Your task to perform on an android device: turn vacation reply on in the gmail app Image 0: 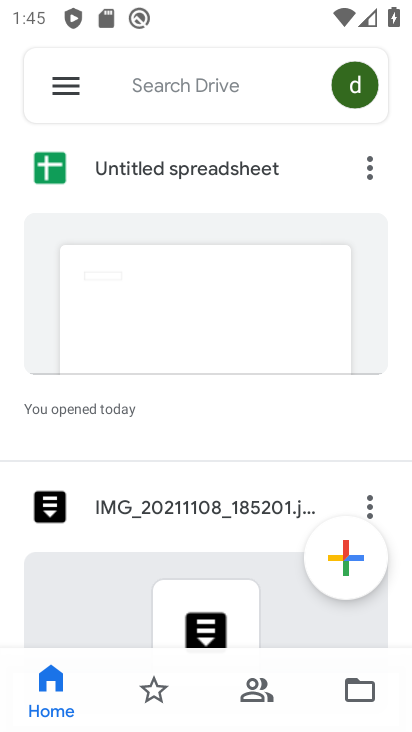
Step 0: press home button
Your task to perform on an android device: turn vacation reply on in the gmail app Image 1: 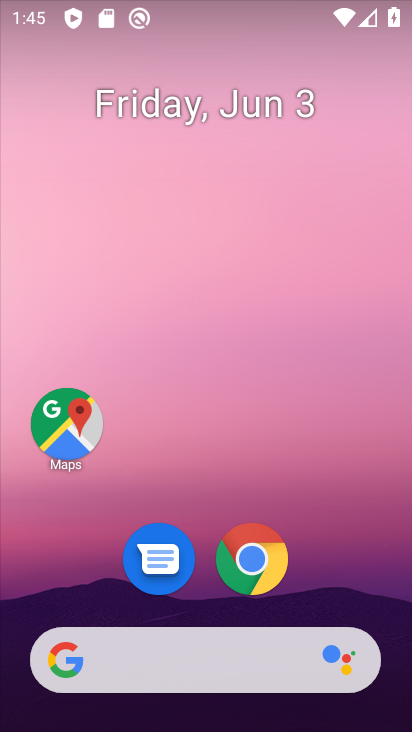
Step 1: drag from (81, 611) to (217, 213)
Your task to perform on an android device: turn vacation reply on in the gmail app Image 2: 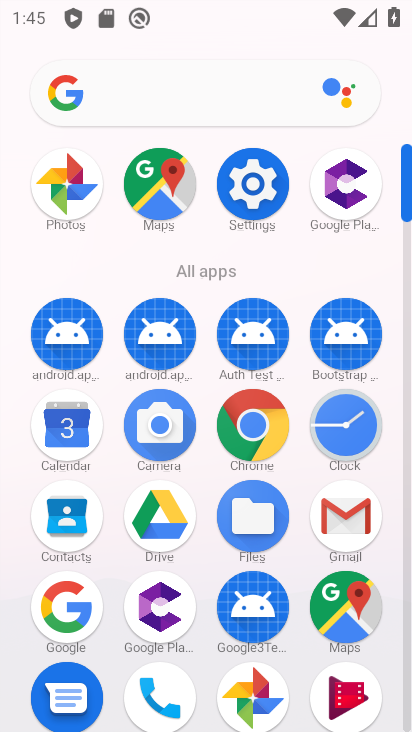
Step 2: click (221, 331)
Your task to perform on an android device: turn vacation reply on in the gmail app Image 3: 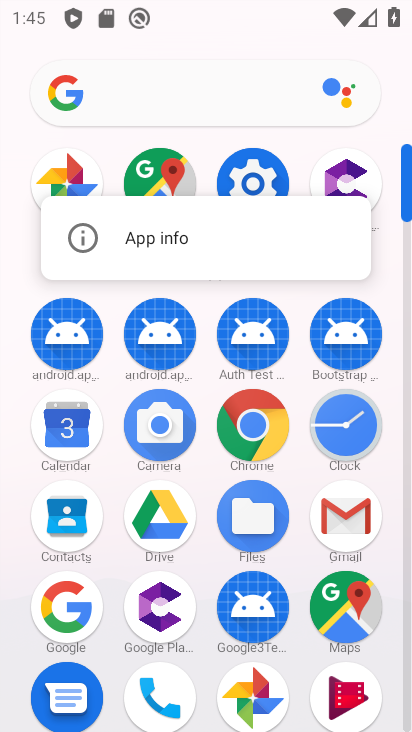
Step 3: click (338, 513)
Your task to perform on an android device: turn vacation reply on in the gmail app Image 4: 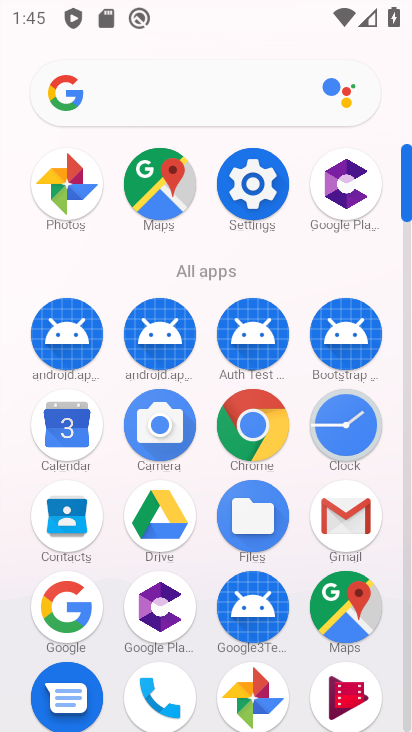
Step 4: click (363, 528)
Your task to perform on an android device: turn vacation reply on in the gmail app Image 5: 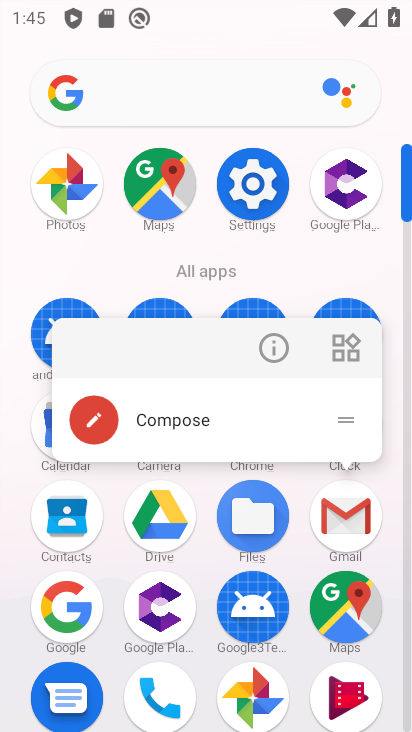
Step 5: click (358, 531)
Your task to perform on an android device: turn vacation reply on in the gmail app Image 6: 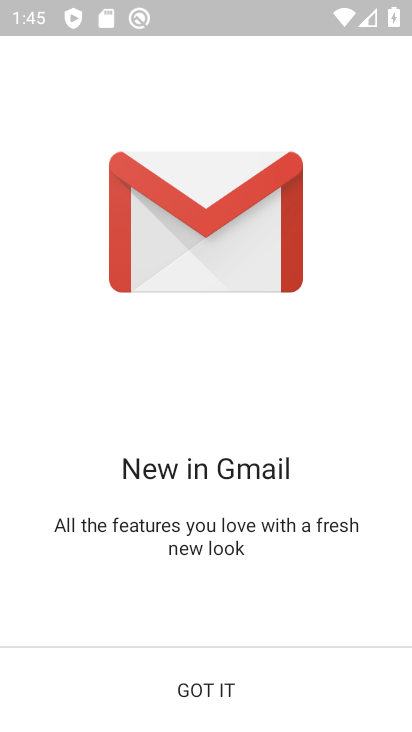
Step 6: click (216, 682)
Your task to perform on an android device: turn vacation reply on in the gmail app Image 7: 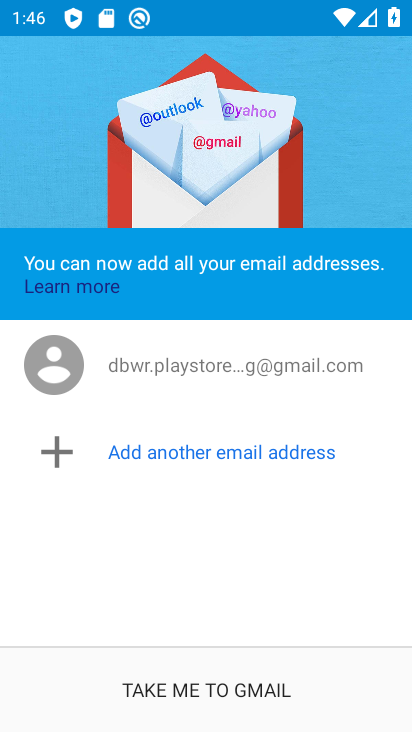
Step 7: click (282, 693)
Your task to perform on an android device: turn vacation reply on in the gmail app Image 8: 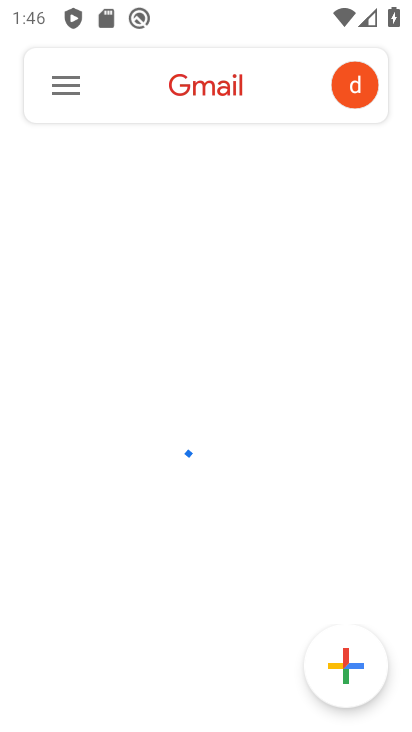
Step 8: click (66, 84)
Your task to perform on an android device: turn vacation reply on in the gmail app Image 9: 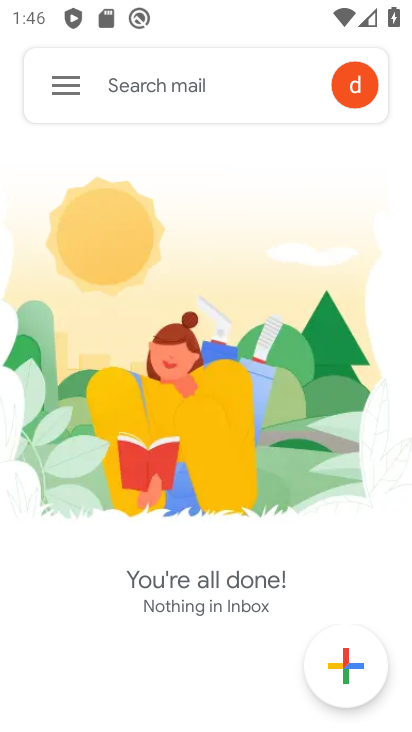
Step 9: click (78, 101)
Your task to perform on an android device: turn vacation reply on in the gmail app Image 10: 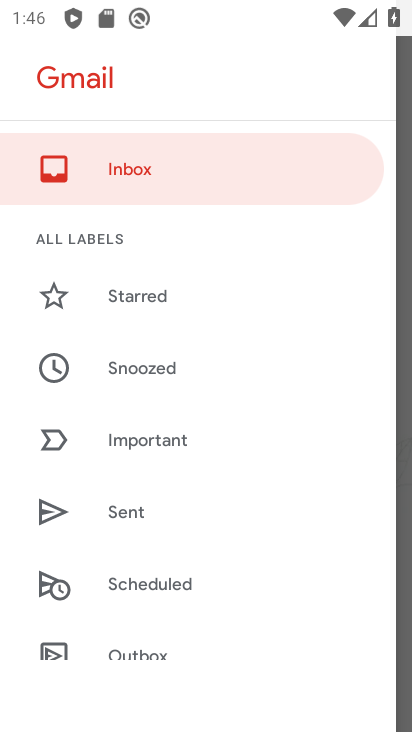
Step 10: drag from (106, 565) to (246, 82)
Your task to perform on an android device: turn vacation reply on in the gmail app Image 11: 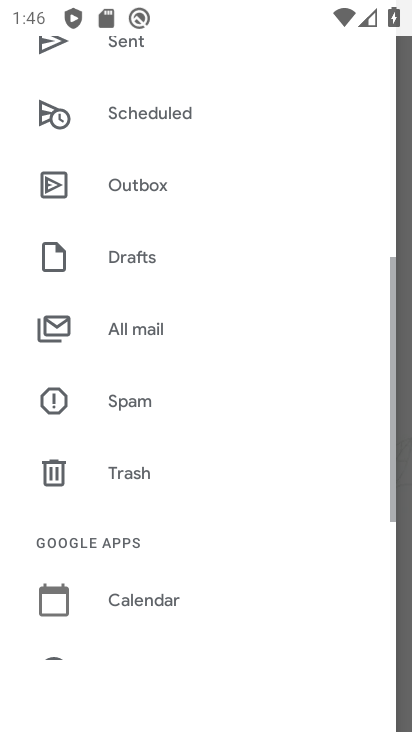
Step 11: drag from (111, 664) to (303, 59)
Your task to perform on an android device: turn vacation reply on in the gmail app Image 12: 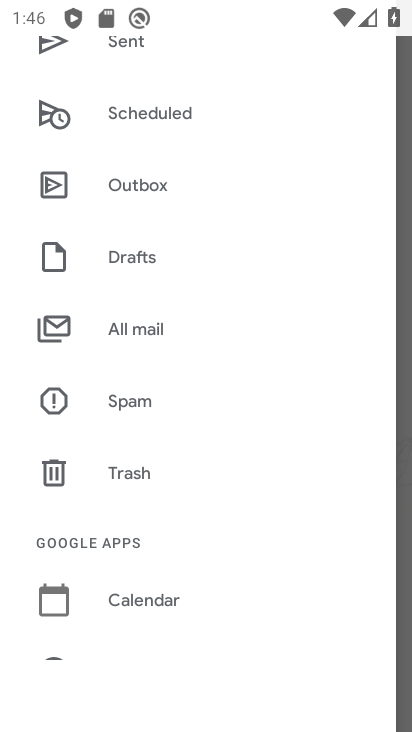
Step 12: drag from (136, 512) to (267, 111)
Your task to perform on an android device: turn vacation reply on in the gmail app Image 13: 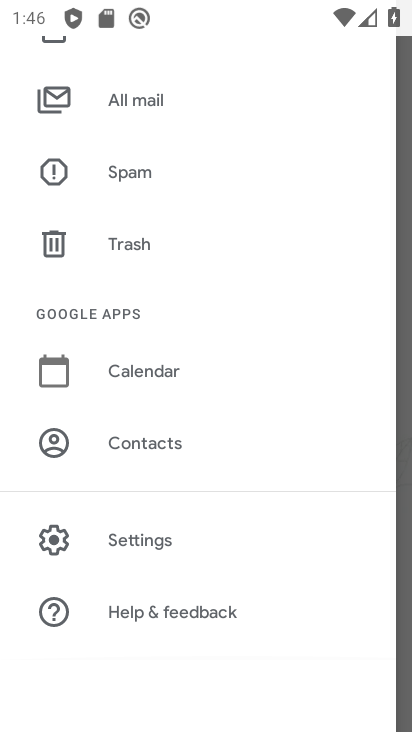
Step 13: click (178, 544)
Your task to perform on an android device: turn vacation reply on in the gmail app Image 14: 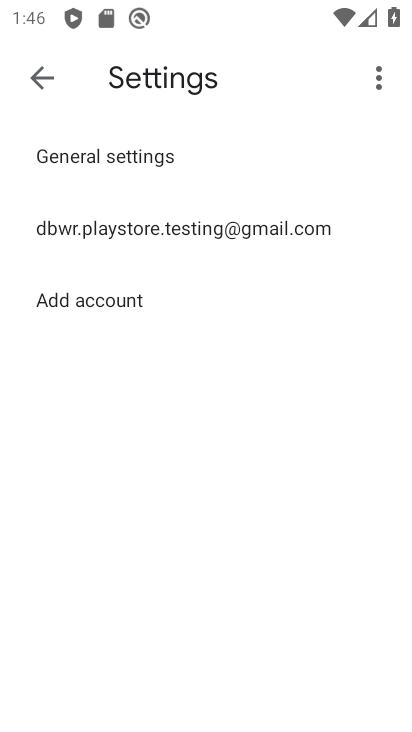
Step 14: click (181, 232)
Your task to perform on an android device: turn vacation reply on in the gmail app Image 15: 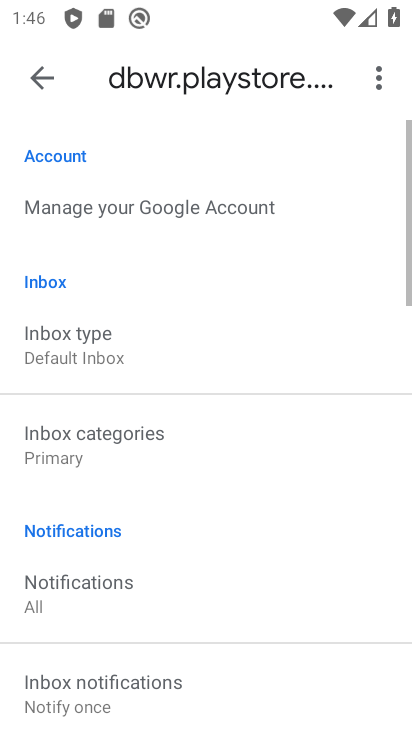
Step 15: drag from (161, 561) to (313, 119)
Your task to perform on an android device: turn vacation reply on in the gmail app Image 16: 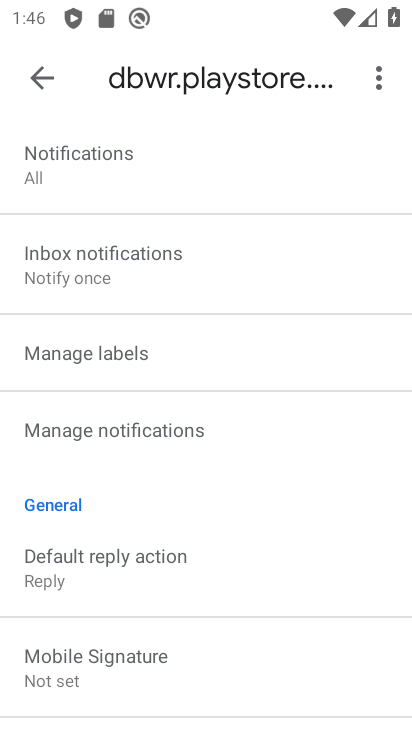
Step 16: drag from (137, 599) to (306, 157)
Your task to perform on an android device: turn vacation reply on in the gmail app Image 17: 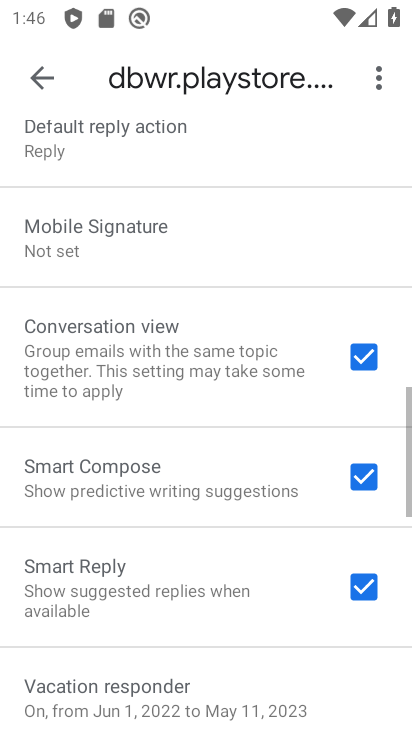
Step 17: drag from (183, 603) to (235, 358)
Your task to perform on an android device: turn vacation reply on in the gmail app Image 18: 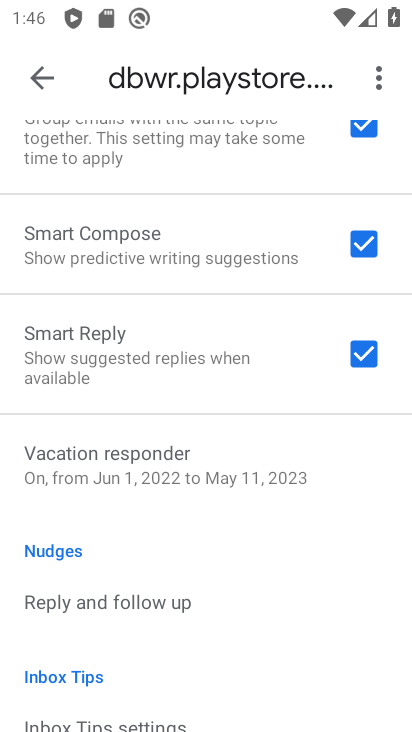
Step 18: click (171, 477)
Your task to perform on an android device: turn vacation reply on in the gmail app Image 19: 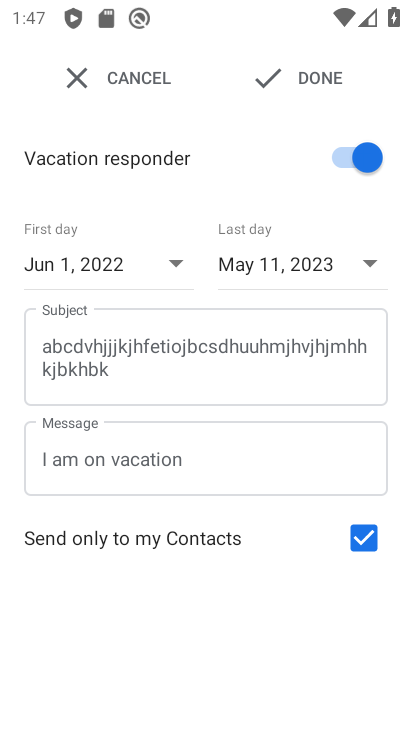
Step 19: task complete